Your task to perform on an android device: read, delete, or share a saved page in the chrome app Image 0: 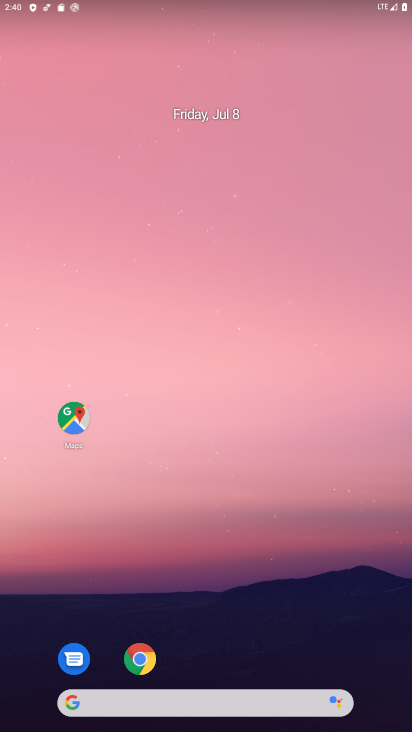
Step 0: press home button
Your task to perform on an android device: read, delete, or share a saved page in the chrome app Image 1: 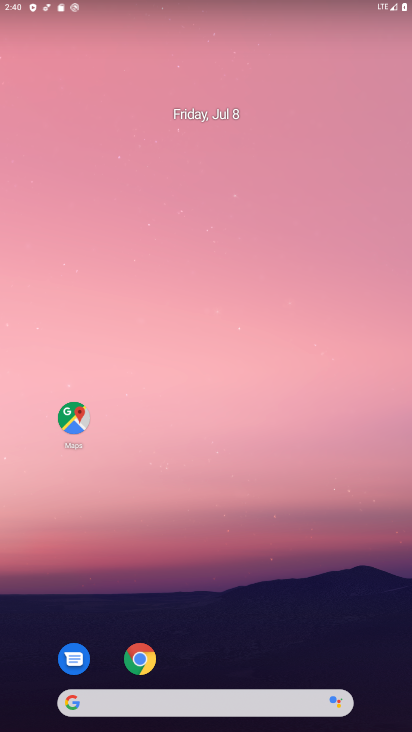
Step 1: click (137, 660)
Your task to perform on an android device: read, delete, or share a saved page in the chrome app Image 2: 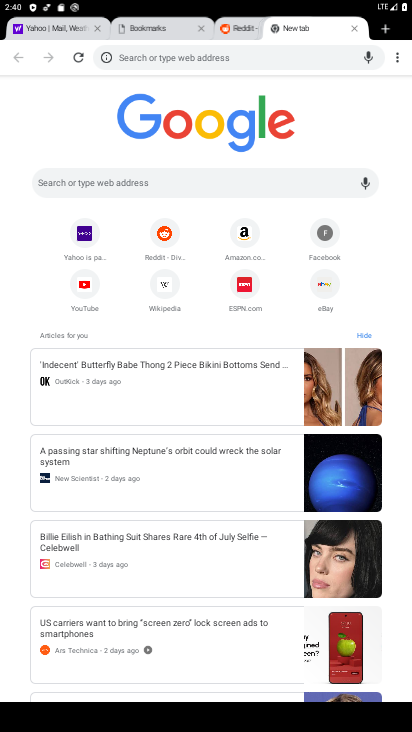
Step 2: click (353, 29)
Your task to perform on an android device: read, delete, or share a saved page in the chrome app Image 3: 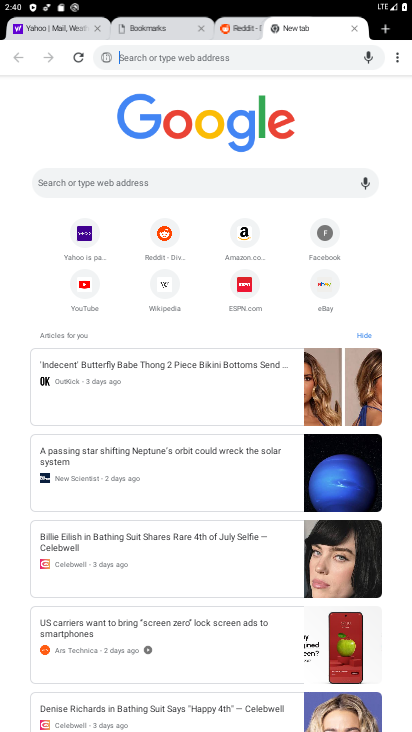
Step 3: click (353, 29)
Your task to perform on an android device: read, delete, or share a saved page in the chrome app Image 4: 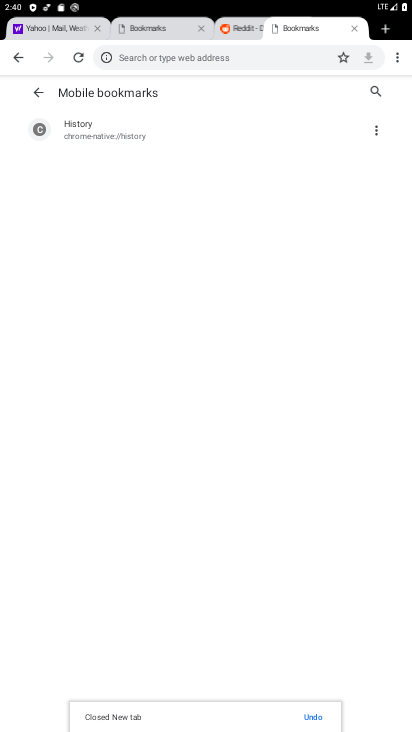
Step 4: click (353, 29)
Your task to perform on an android device: read, delete, or share a saved page in the chrome app Image 5: 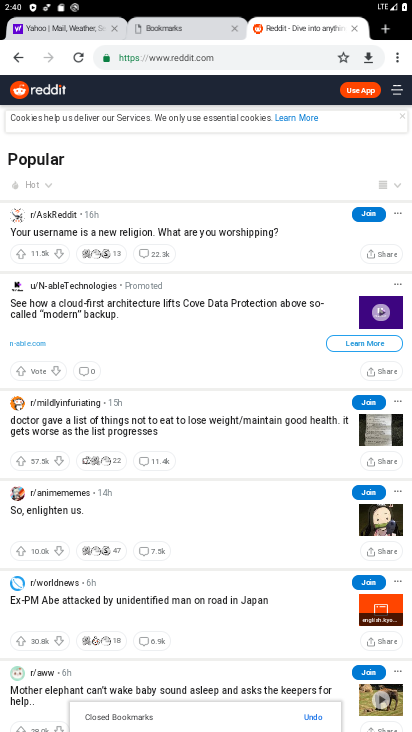
Step 5: click (359, 23)
Your task to perform on an android device: read, delete, or share a saved page in the chrome app Image 6: 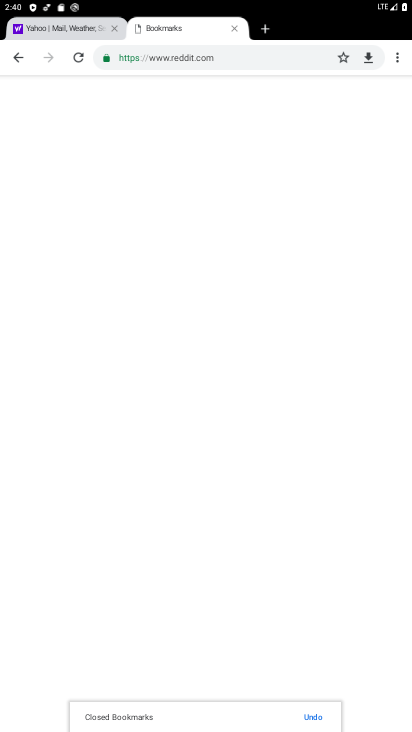
Step 6: click (351, 27)
Your task to perform on an android device: read, delete, or share a saved page in the chrome app Image 7: 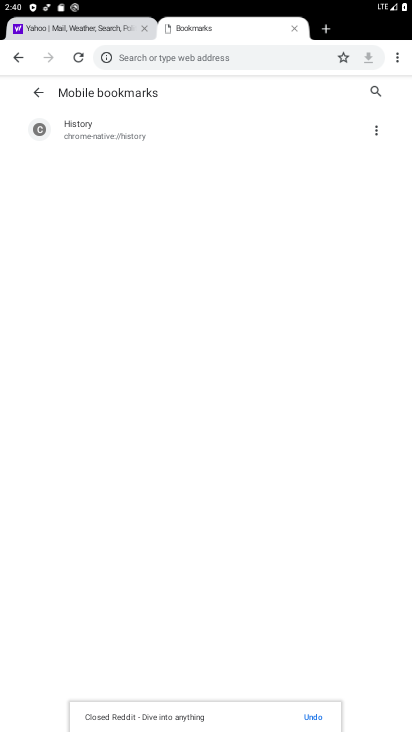
Step 7: click (296, 28)
Your task to perform on an android device: read, delete, or share a saved page in the chrome app Image 8: 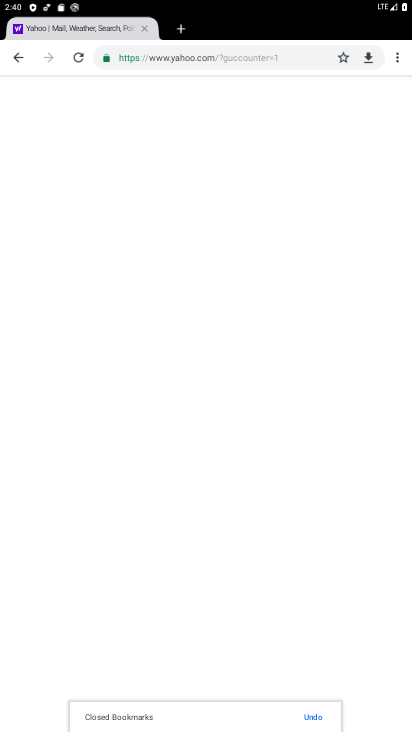
Step 8: click (175, 25)
Your task to perform on an android device: read, delete, or share a saved page in the chrome app Image 9: 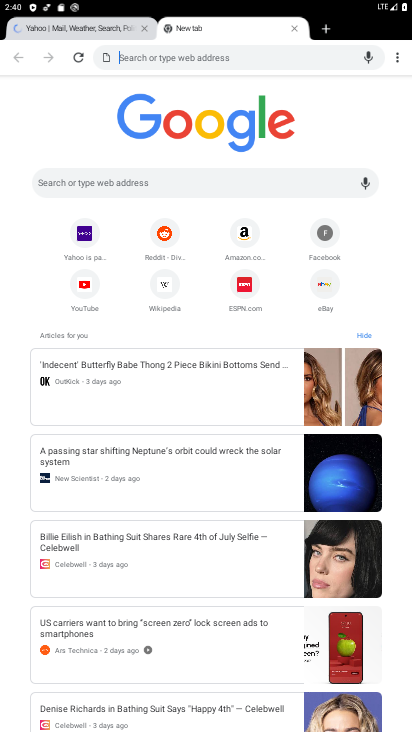
Step 9: click (401, 59)
Your task to perform on an android device: read, delete, or share a saved page in the chrome app Image 10: 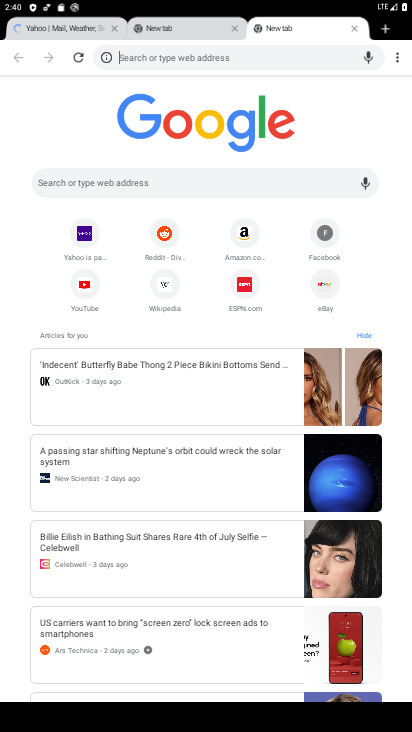
Step 10: click (393, 54)
Your task to perform on an android device: read, delete, or share a saved page in the chrome app Image 11: 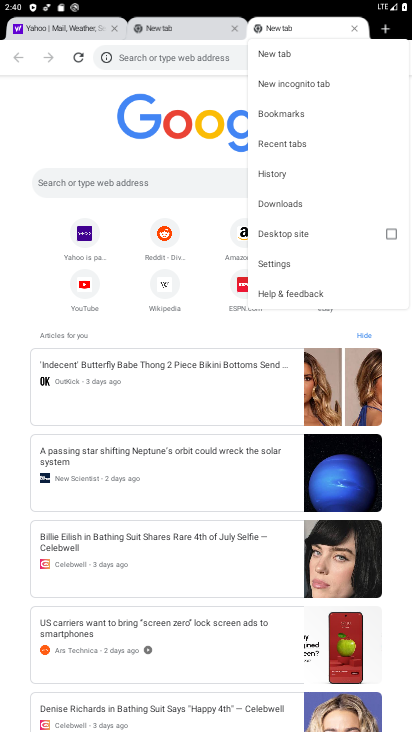
Step 11: click (311, 204)
Your task to perform on an android device: read, delete, or share a saved page in the chrome app Image 12: 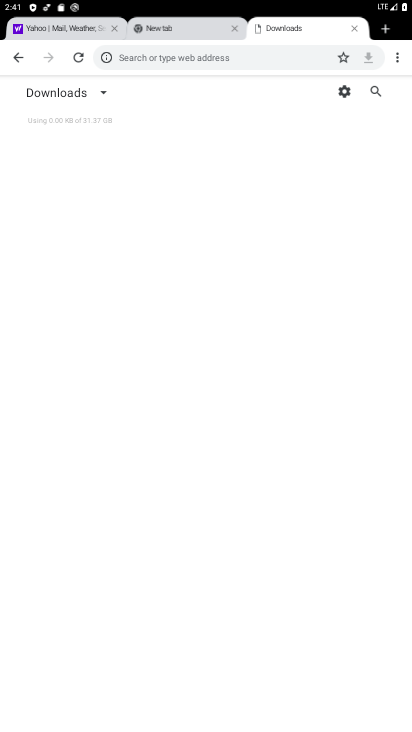
Step 12: task complete